Your task to perform on an android device: Open Google Image 0: 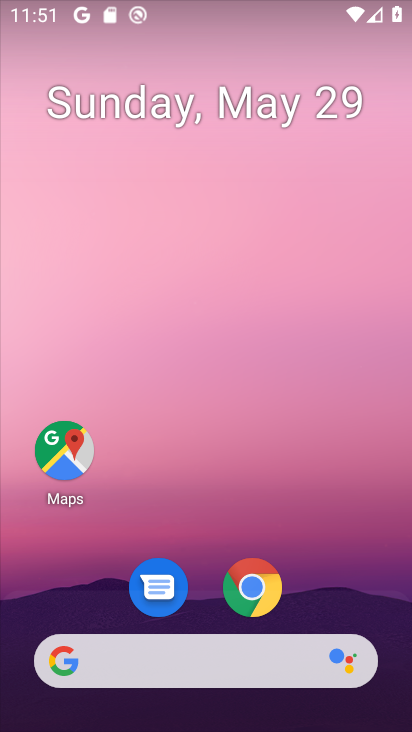
Step 0: drag from (340, 612) to (212, 27)
Your task to perform on an android device: Open Google Image 1: 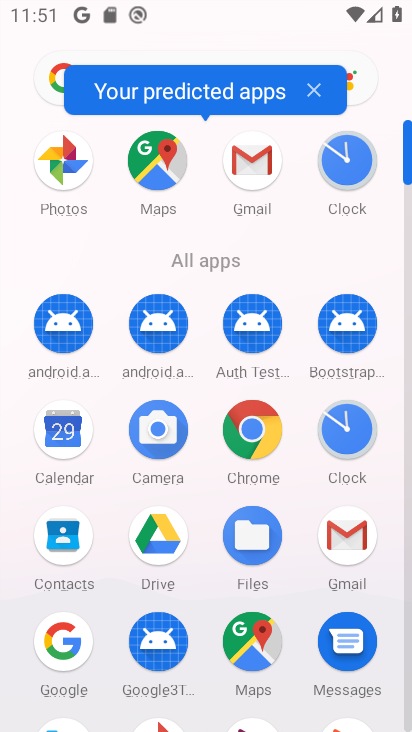
Step 1: click (75, 633)
Your task to perform on an android device: Open Google Image 2: 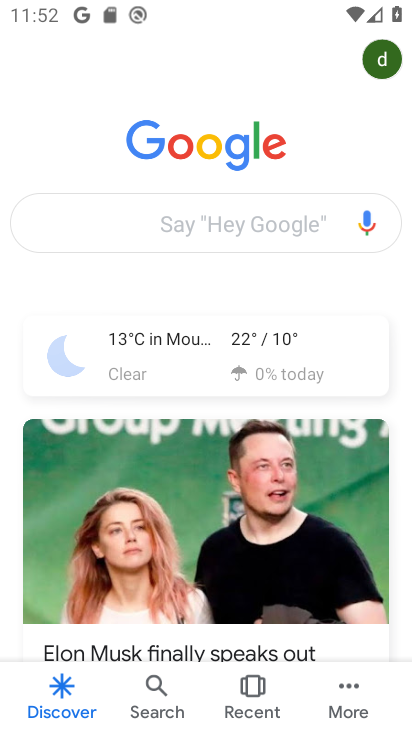
Step 2: task complete